Your task to perform on an android device: Show me popular games on the Play Store Image 0: 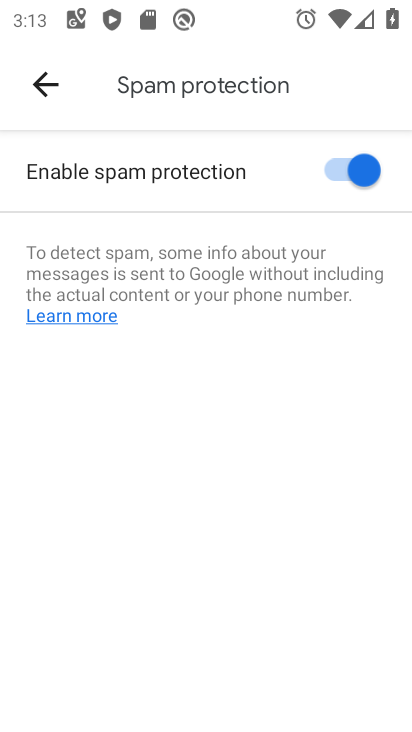
Step 0: press home button
Your task to perform on an android device: Show me popular games on the Play Store Image 1: 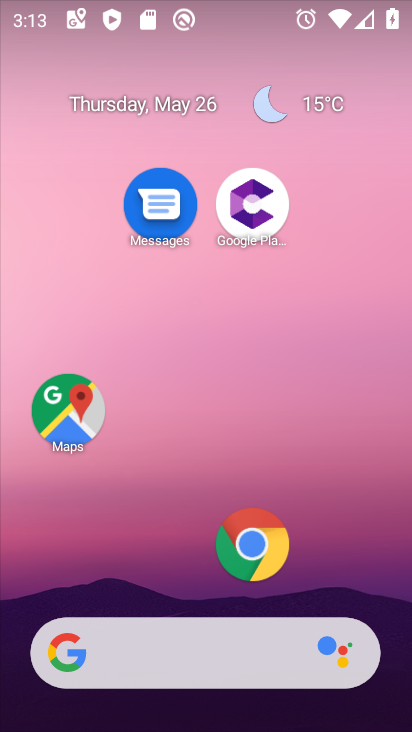
Step 1: drag from (109, 592) to (173, 64)
Your task to perform on an android device: Show me popular games on the Play Store Image 2: 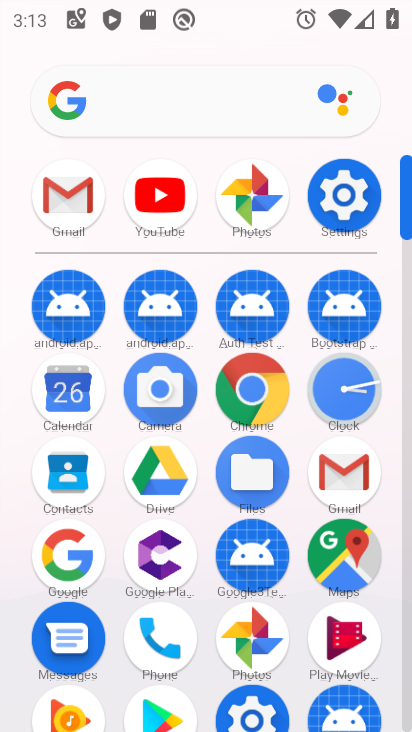
Step 2: click (160, 701)
Your task to perform on an android device: Show me popular games on the Play Store Image 3: 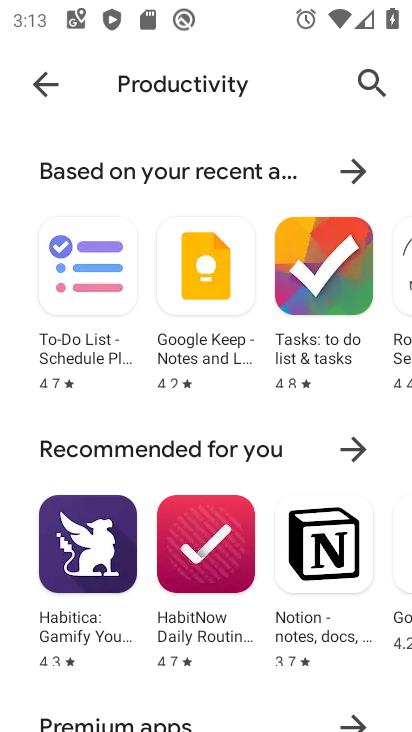
Step 3: click (22, 81)
Your task to perform on an android device: Show me popular games on the Play Store Image 4: 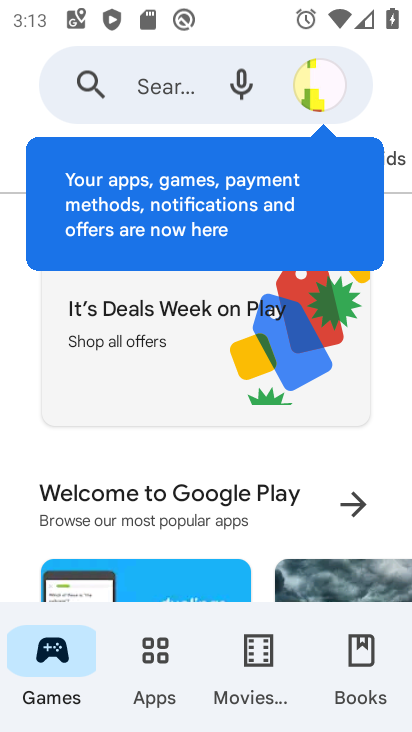
Step 4: click (34, 442)
Your task to perform on an android device: Show me popular games on the Play Store Image 5: 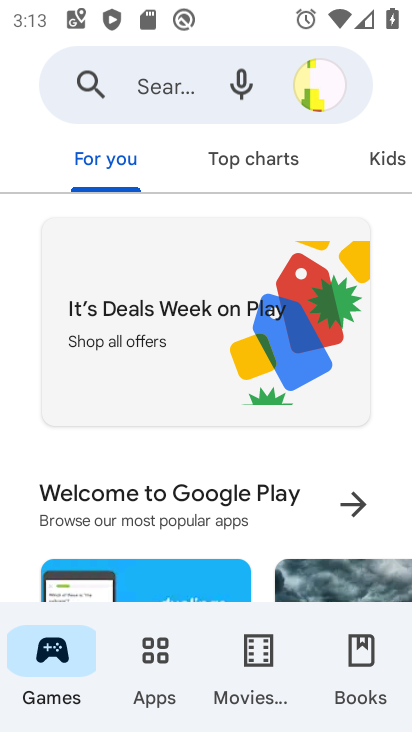
Step 5: click (249, 163)
Your task to perform on an android device: Show me popular games on the Play Store Image 6: 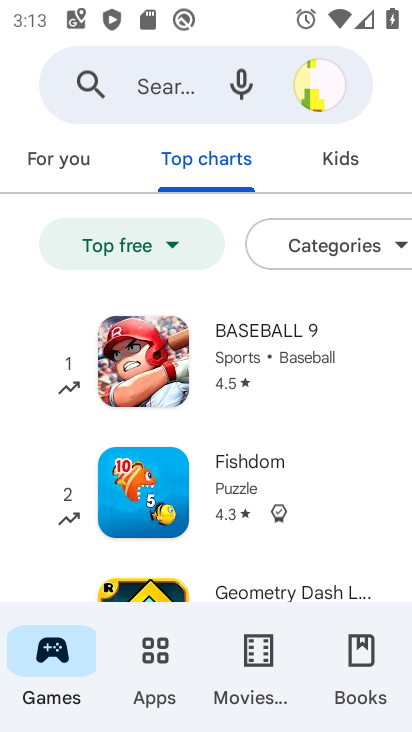
Step 6: click (249, 163)
Your task to perform on an android device: Show me popular games on the Play Store Image 7: 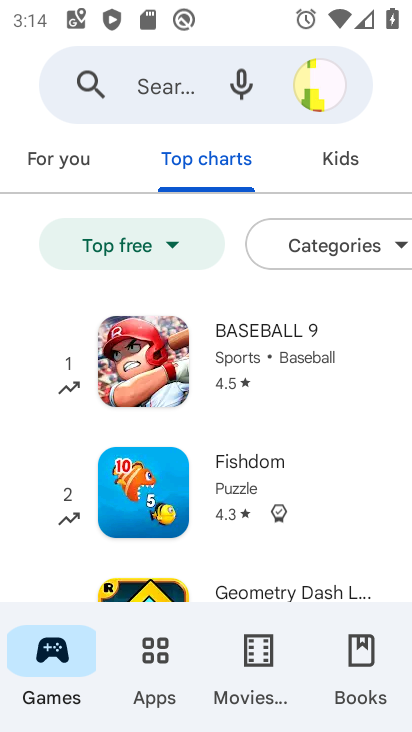
Step 7: task complete